Your task to perform on an android device: What is the news today? Image 0: 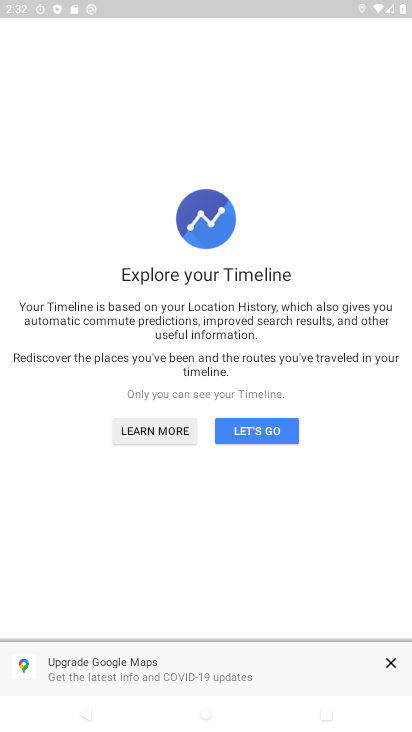
Step 0: press home button
Your task to perform on an android device: What is the news today? Image 1: 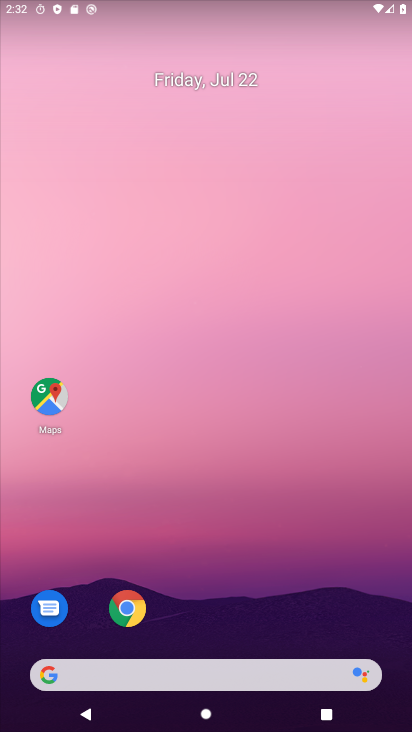
Step 1: drag from (193, 659) to (192, 218)
Your task to perform on an android device: What is the news today? Image 2: 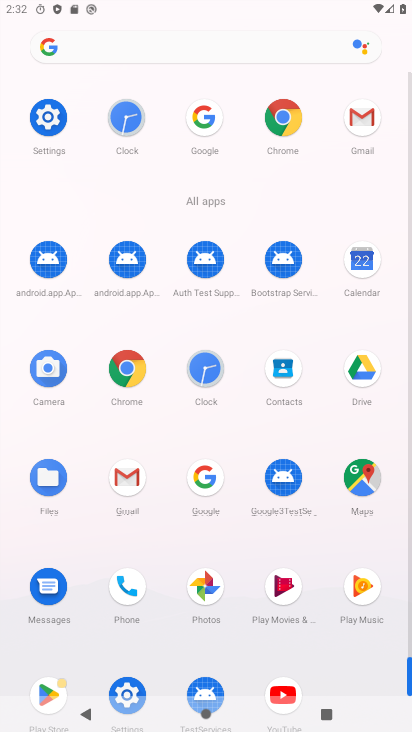
Step 2: click (205, 478)
Your task to perform on an android device: What is the news today? Image 3: 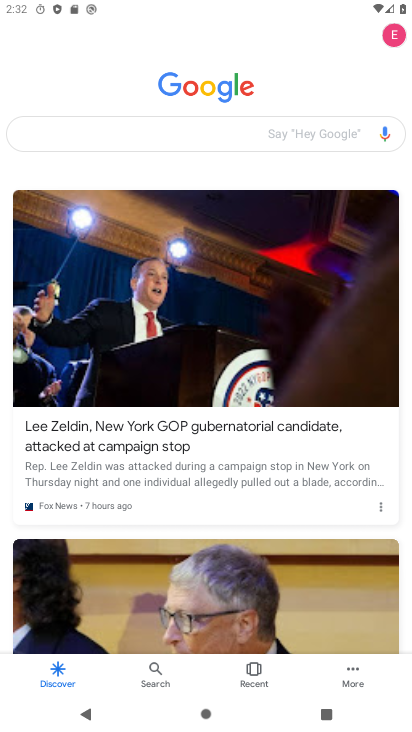
Step 3: click (107, 134)
Your task to perform on an android device: What is the news today? Image 4: 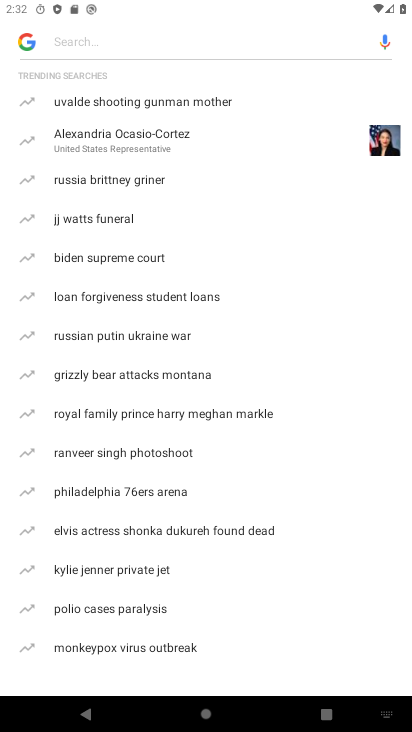
Step 4: click (76, 74)
Your task to perform on an android device: What is the news today? Image 5: 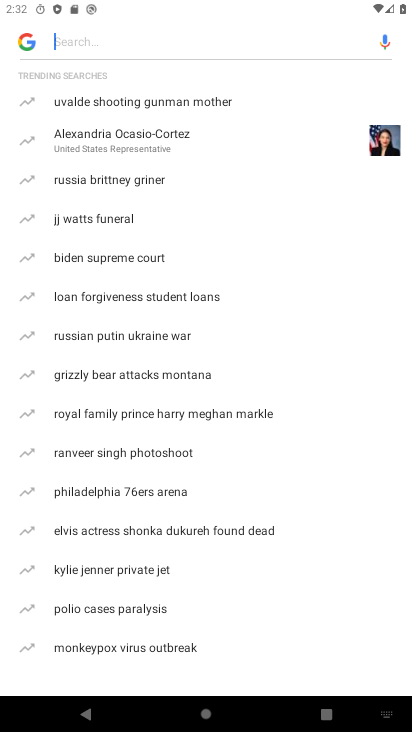
Step 5: type "What is the news today?"
Your task to perform on an android device: What is the news today? Image 6: 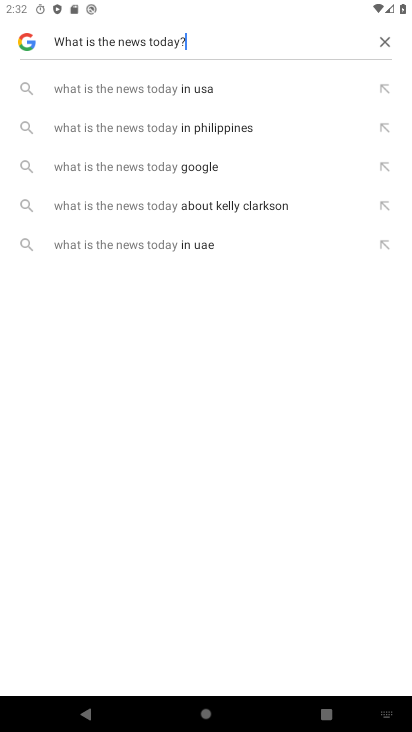
Step 6: click (157, 86)
Your task to perform on an android device: What is the news today? Image 7: 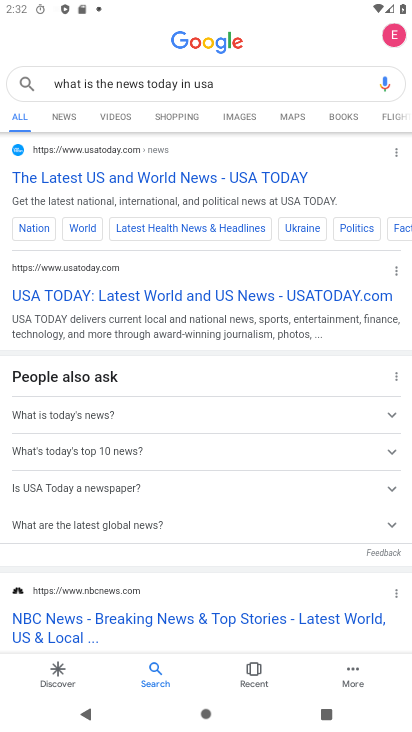
Step 7: click (172, 166)
Your task to perform on an android device: What is the news today? Image 8: 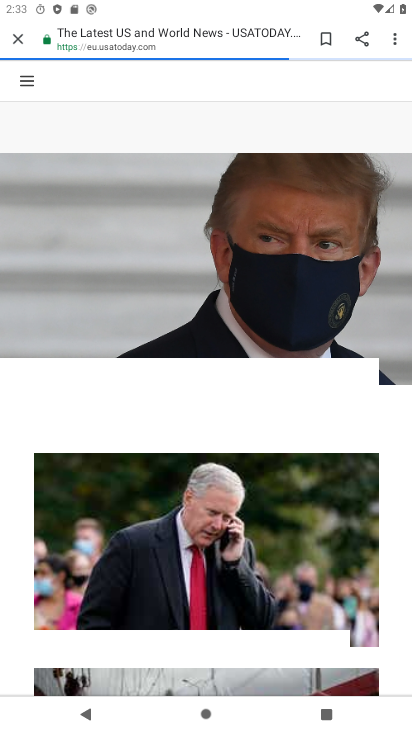
Step 8: task complete